Your task to perform on an android device: Open Google Chrome and click the shortcut for Amazon.com Image 0: 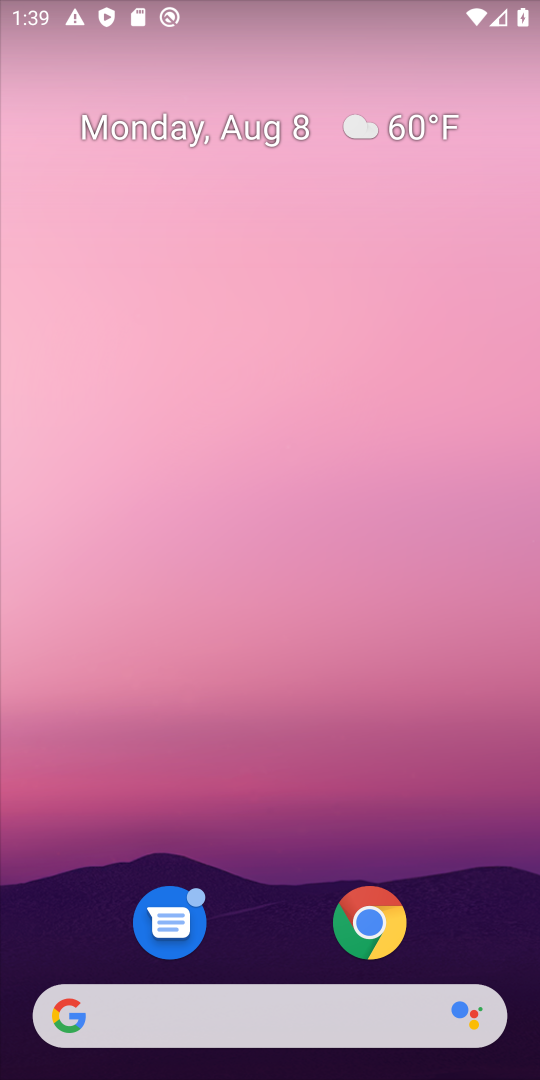
Step 0: drag from (408, 559) to (391, 60)
Your task to perform on an android device: Open Google Chrome and click the shortcut for Amazon.com Image 1: 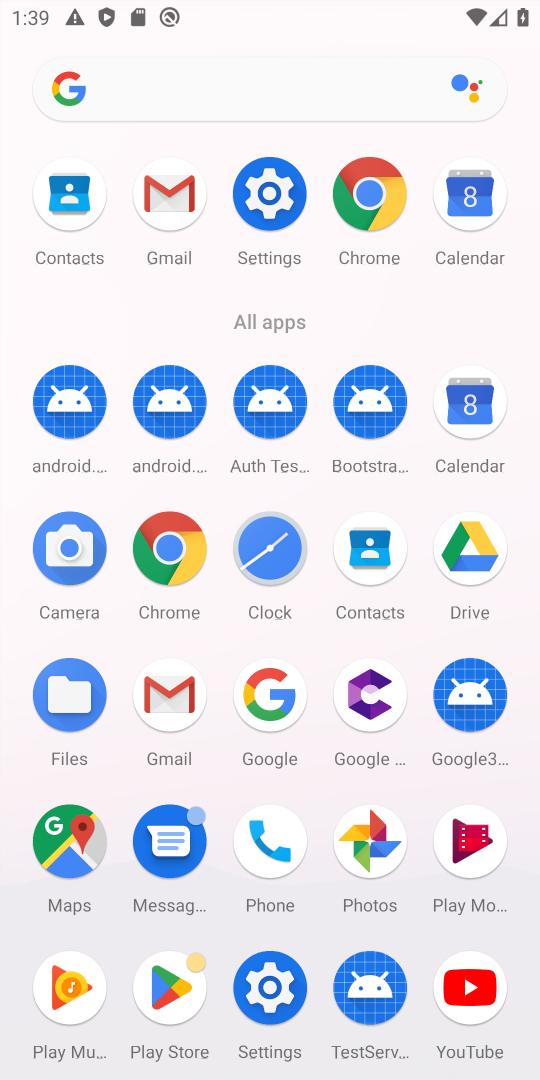
Step 1: click (168, 547)
Your task to perform on an android device: Open Google Chrome and click the shortcut for Amazon.com Image 2: 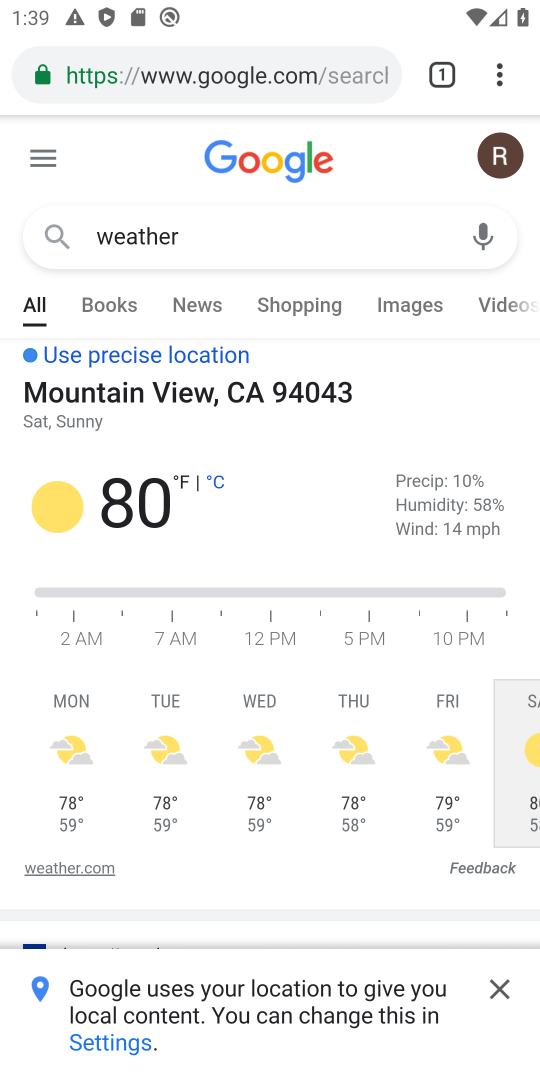
Step 2: drag from (501, 69) to (275, 247)
Your task to perform on an android device: Open Google Chrome and click the shortcut for Amazon.com Image 3: 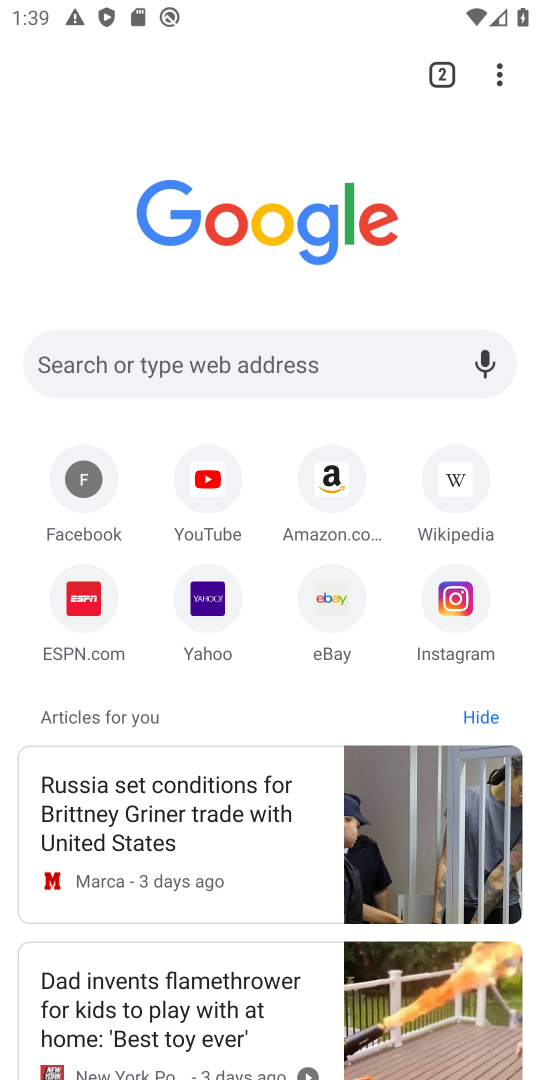
Step 3: click (346, 482)
Your task to perform on an android device: Open Google Chrome and click the shortcut for Amazon.com Image 4: 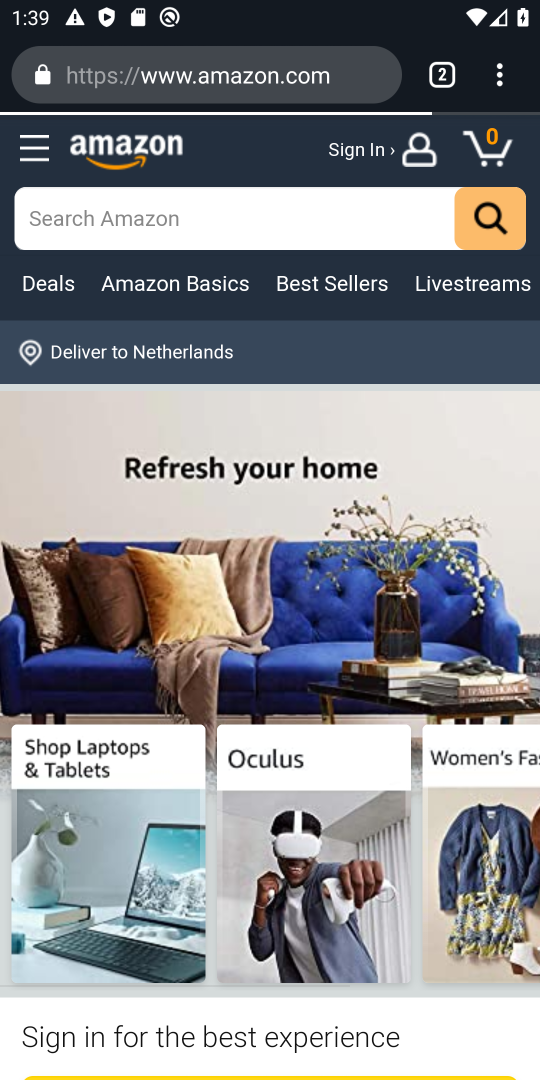
Step 4: task complete